Your task to perform on an android device: Clear the cart on newegg. Image 0: 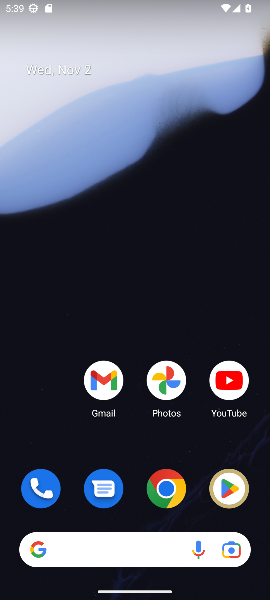
Step 0: click (166, 490)
Your task to perform on an android device: Clear the cart on newegg. Image 1: 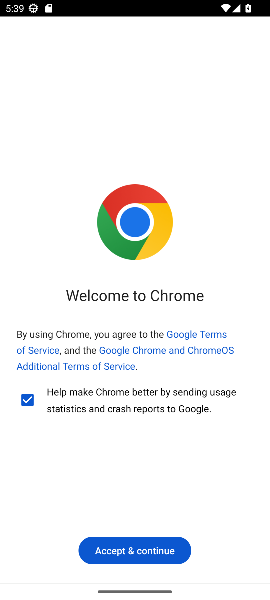
Step 1: click (147, 547)
Your task to perform on an android device: Clear the cart on newegg. Image 2: 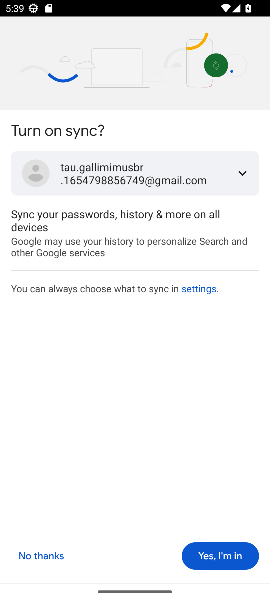
Step 2: click (225, 562)
Your task to perform on an android device: Clear the cart on newegg. Image 3: 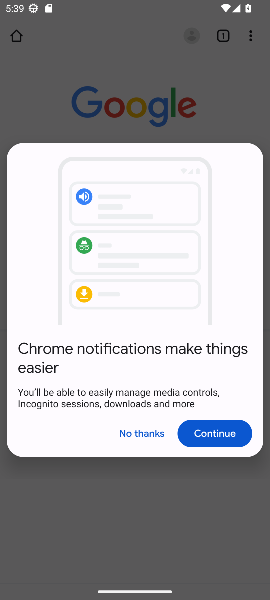
Step 3: click (145, 437)
Your task to perform on an android device: Clear the cart on newegg. Image 4: 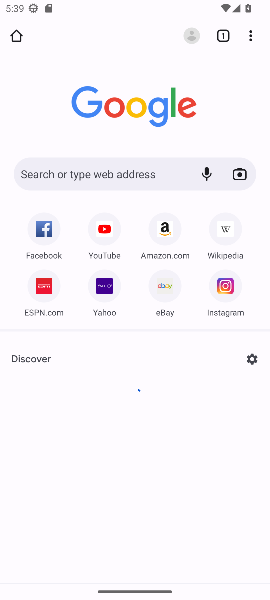
Step 4: click (103, 174)
Your task to perform on an android device: Clear the cart on newegg. Image 5: 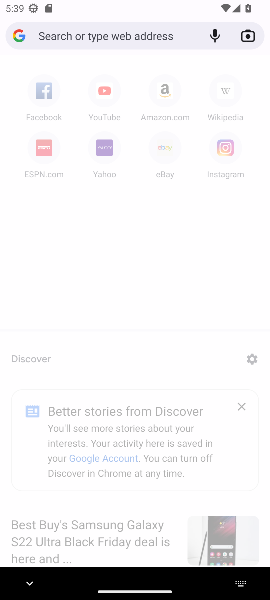
Step 5: type "newegg"
Your task to perform on an android device: Clear the cart on newegg. Image 6: 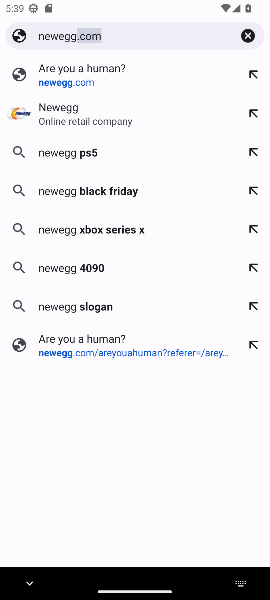
Step 6: click (88, 113)
Your task to perform on an android device: Clear the cart on newegg. Image 7: 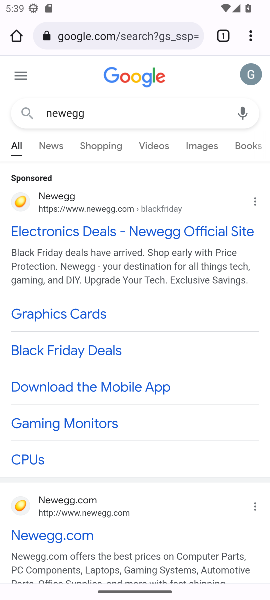
Step 7: click (169, 228)
Your task to perform on an android device: Clear the cart on newegg. Image 8: 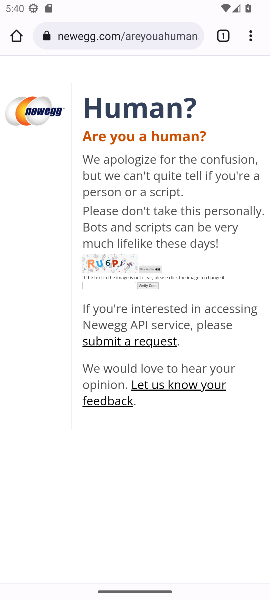
Step 8: task complete